Your task to perform on an android device: Open display settings Image 0: 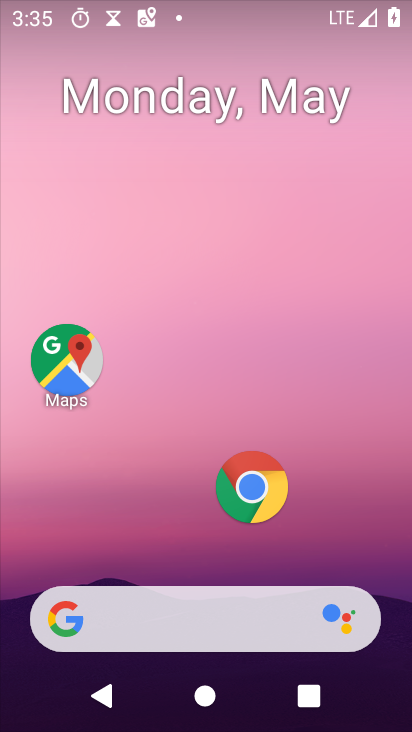
Step 0: drag from (176, 544) to (219, 26)
Your task to perform on an android device: Open display settings Image 1: 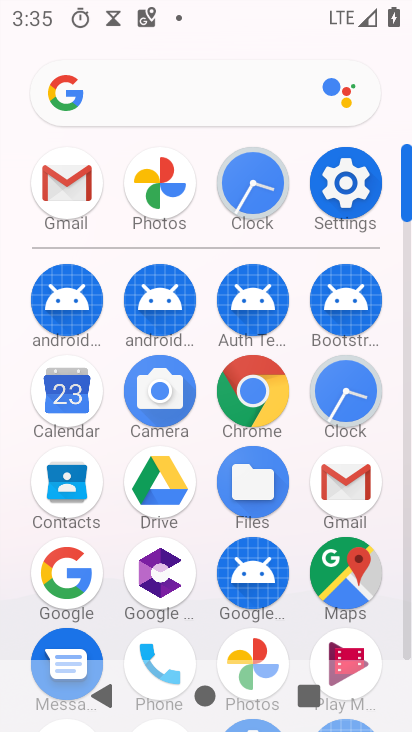
Step 1: click (353, 178)
Your task to perform on an android device: Open display settings Image 2: 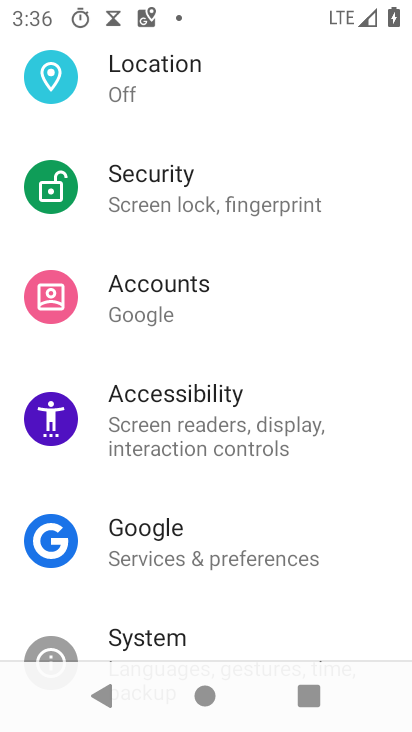
Step 2: drag from (272, 298) to (229, 666)
Your task to perform on an android device: Open display settings Image 3: 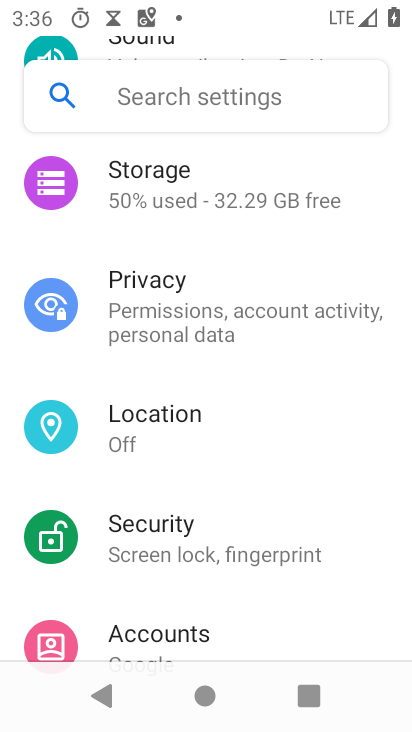
Step 3: drag from (219, 225) to (225, 593)
Your task to perform on an android device: Open display settings Image 4: 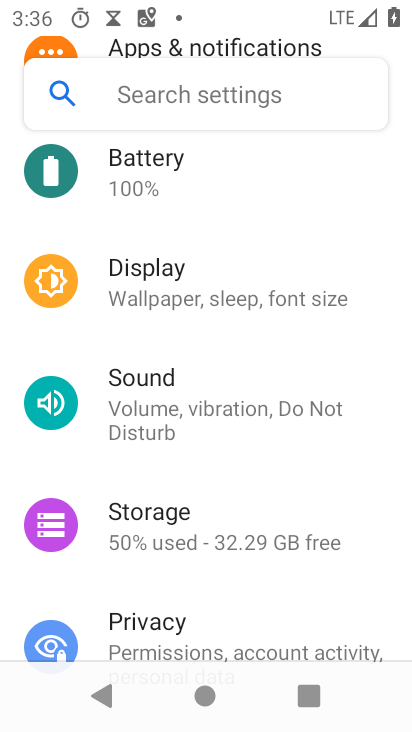
Step 4: click (211, 276)
Your task to perform on an android device: Open display settings Image 5: 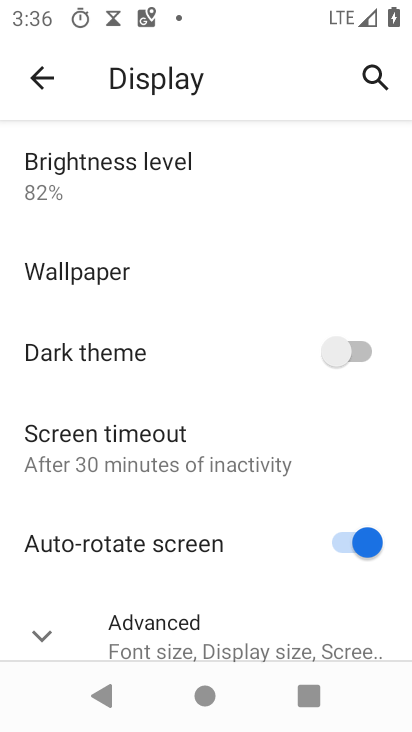
Step 5: task complete